Your task to perform on an android device: open app "Nova Launcher" Image 0: 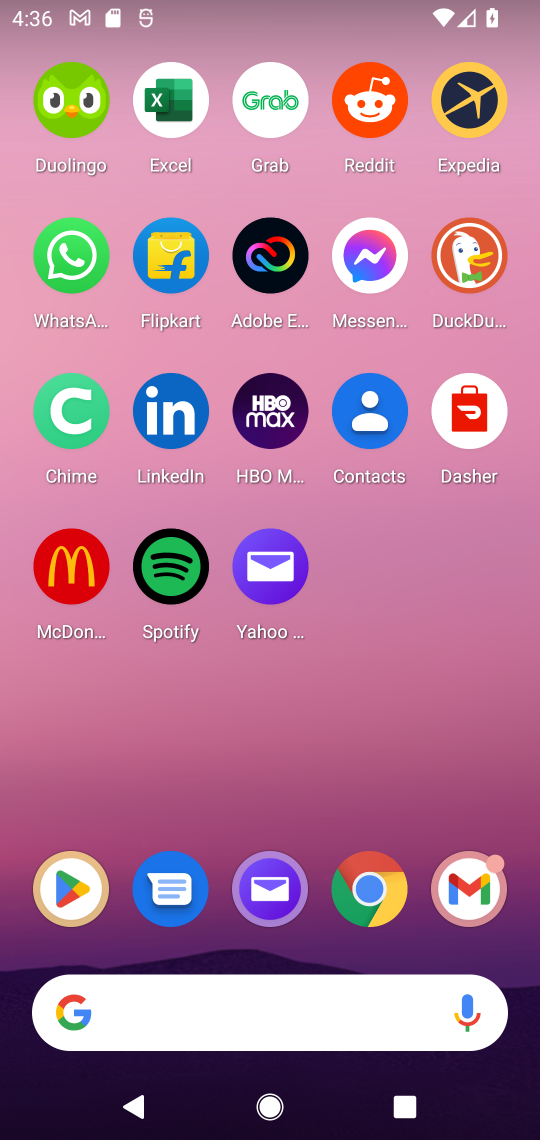
Step 0: drag from (416, 642) to (400, 39)
Your task to perform on an android device: open app "Nova Launcher" Image 1: 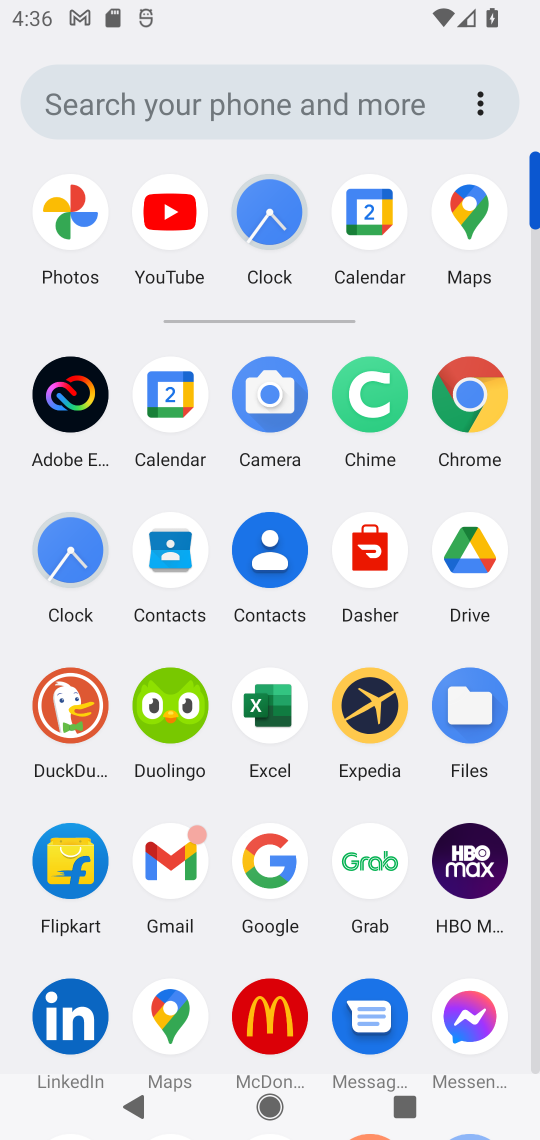
Step 1: drag from (512, 973) to (535, 415)
Your task to perform on an android device: open app "Nova Launcher" Image 2: 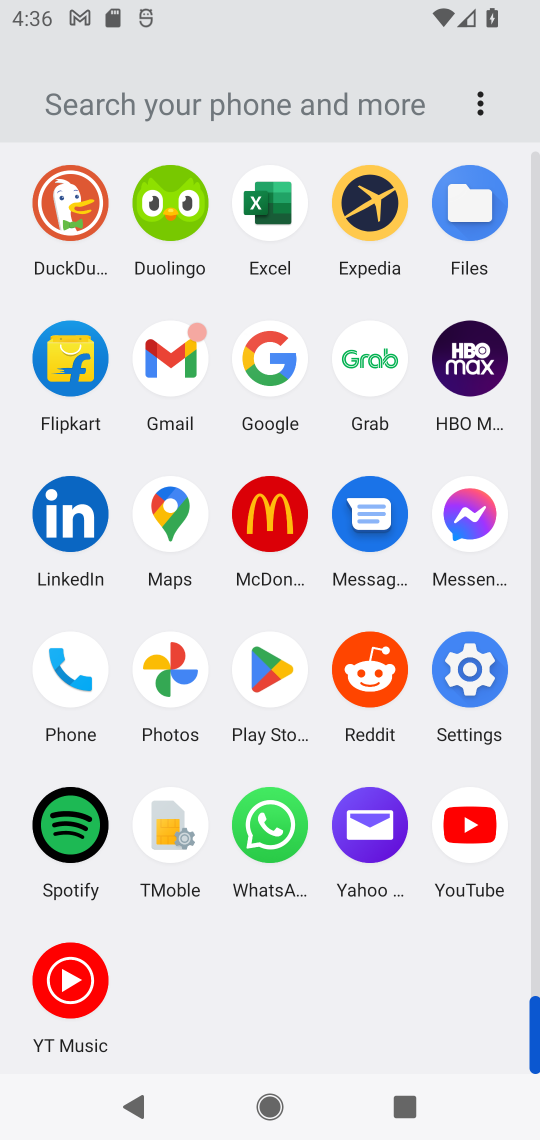
Step 2: click (279, 683)
Your task to perform on an android device: open app "Nova Launcher" Image 3: 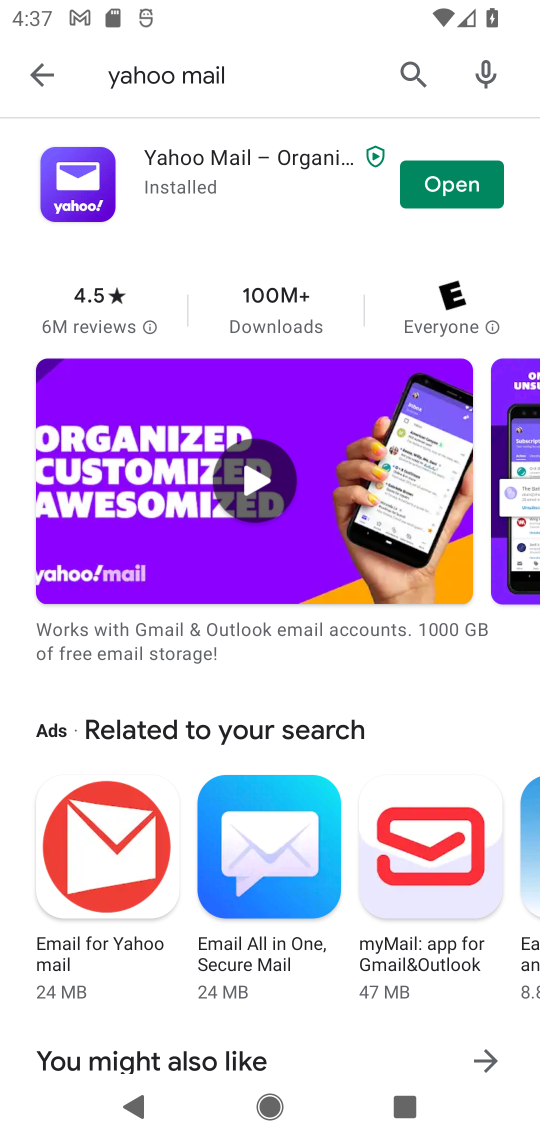
Step 3: click (416, 77)
Your task to perform on an android device: open app "Nova Launcher" Image 4: 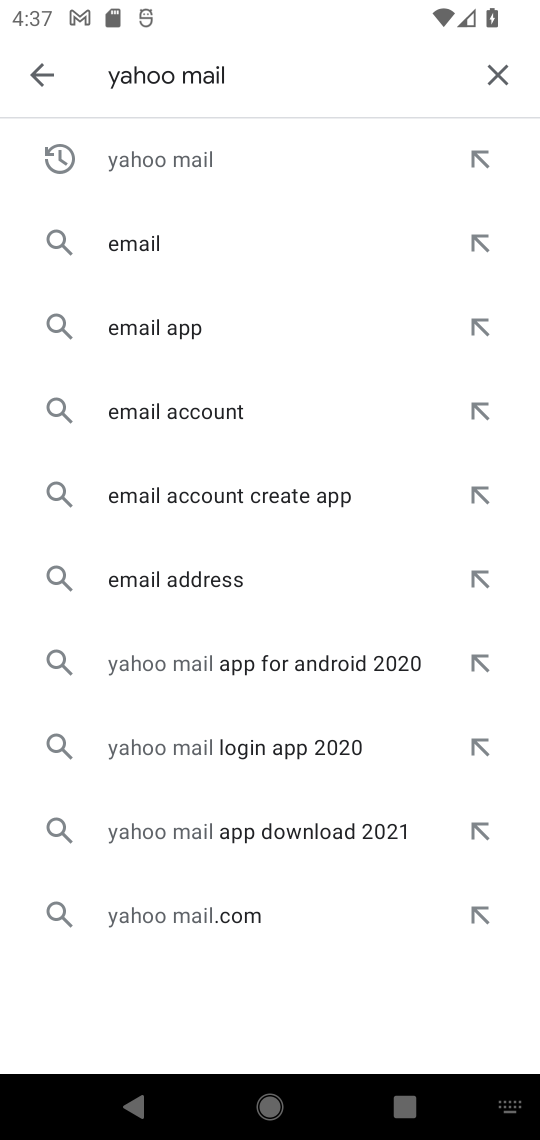
Step 4: click (502, 80)
Your task to perform on an android device: open app "Nova Launcher" Image 5: 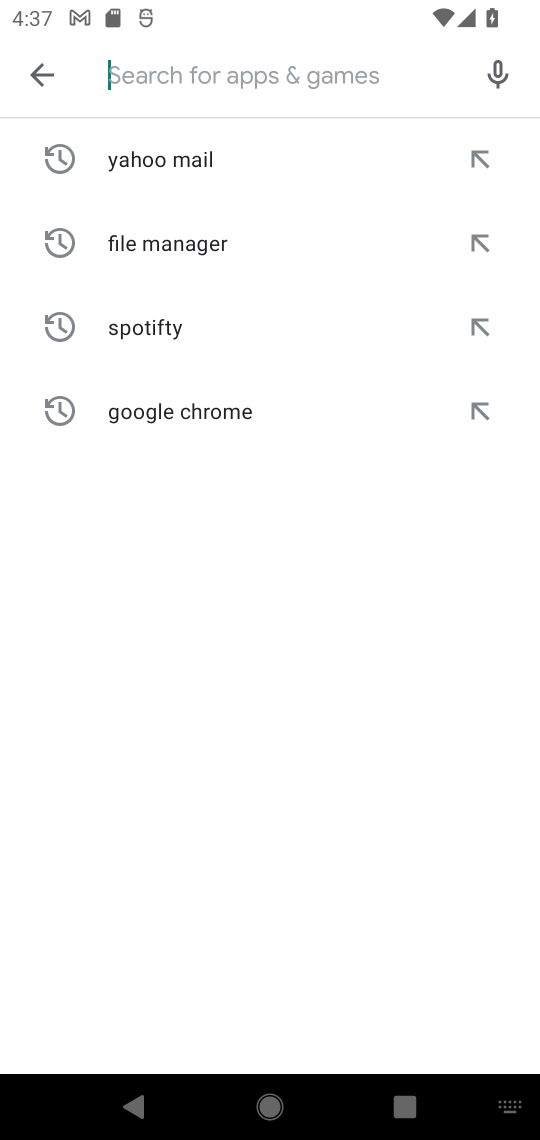
Step 5: type "nova launcher"
Your task to perform on an android device: open app "Nova Launcher" Image 6: 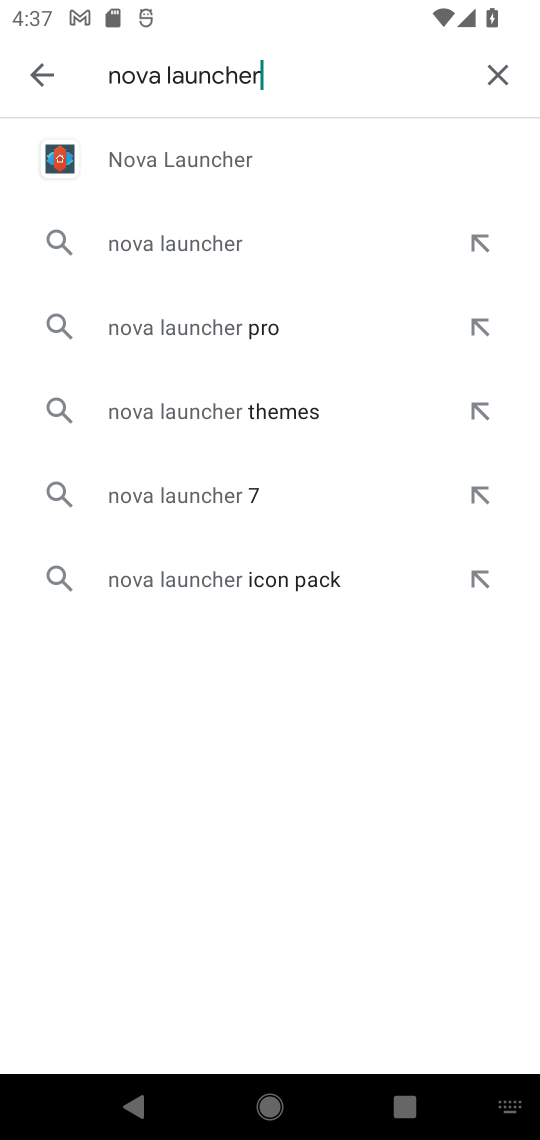
Step 6: click (213, 164)
Your task to perform on an android device: open app "Nova Launcher" Image 7: 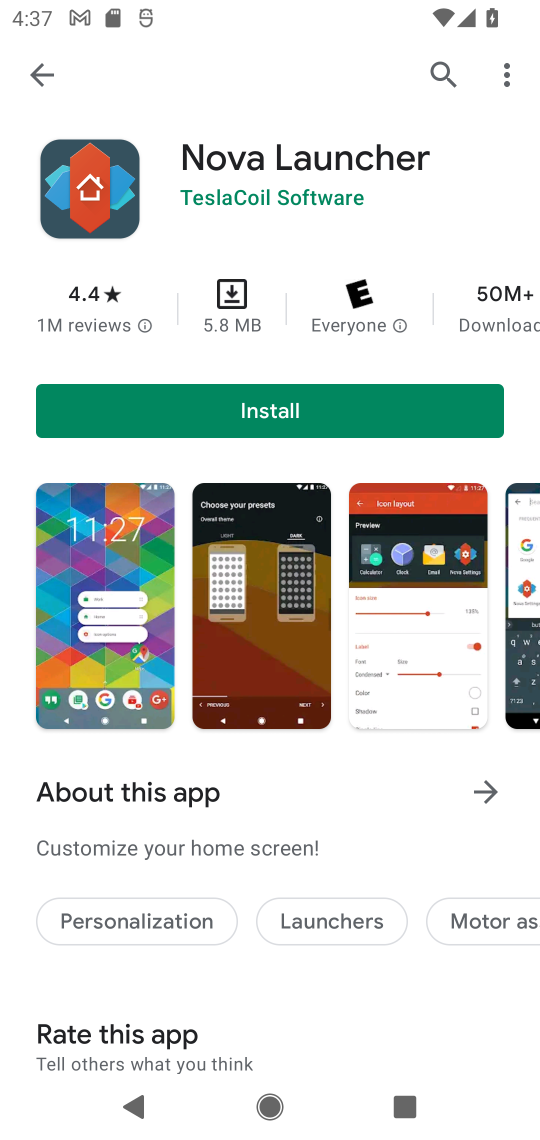
Step 7: task complete